Your task to perform on an android device: open app "Cash App" Image 0: 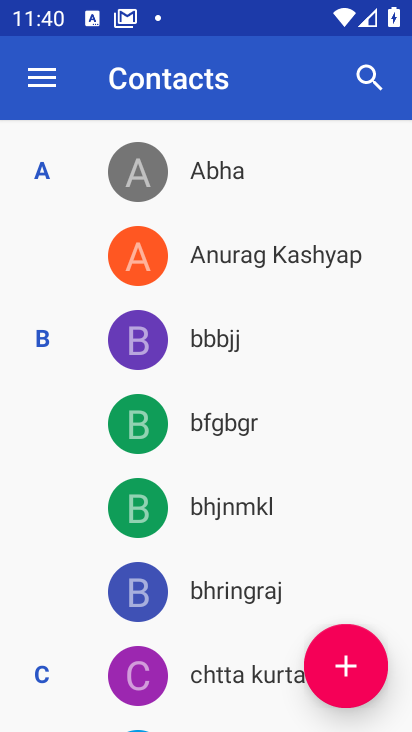
Step 0: press back button
Your task to perform on an android device: open app "Cash App" Image 1: 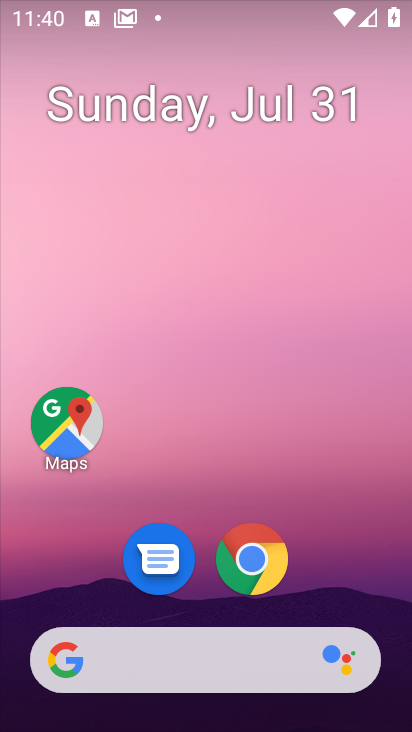
Step 1: drag from (40, 594) to (166, 17)
Your task to perform on an android device: open app "Cash App" Image 2: 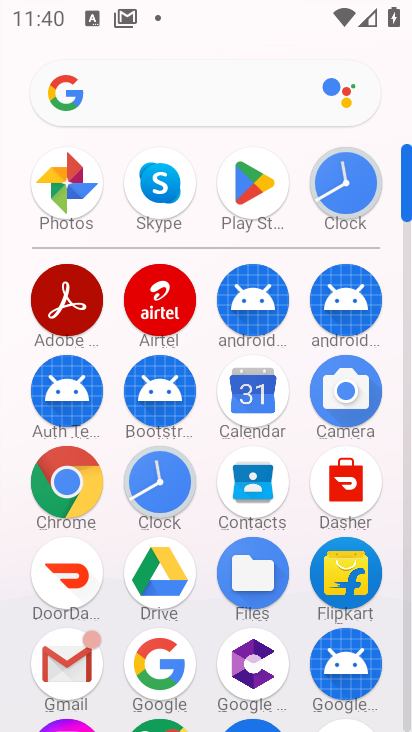
Step 2: click (247, 164)
Your task to perform on an android device: open app "Cash App" Image 3: 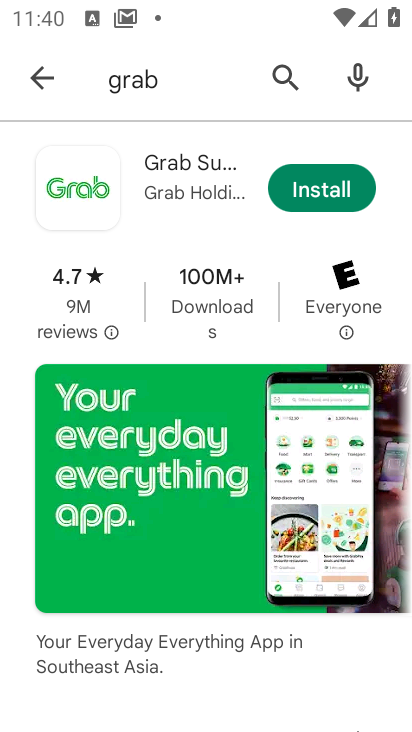
Step 3: click (289, 82)
Your task to perform on an android device: open app "Cash App" Image 4: 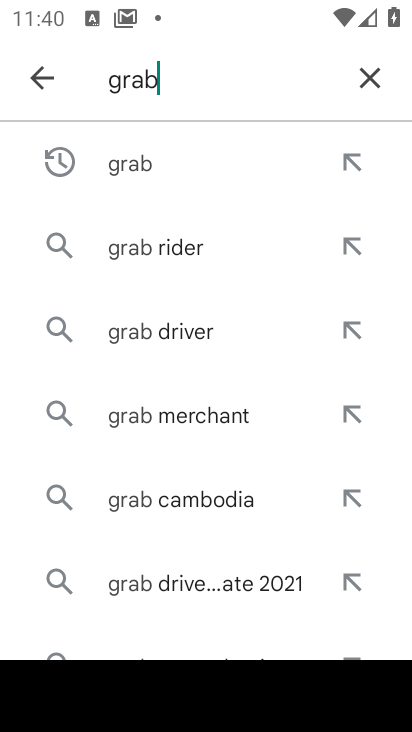
Step 4: click (378, 76)
Your task to perform on an android device: open app "Cash App" Image 5: 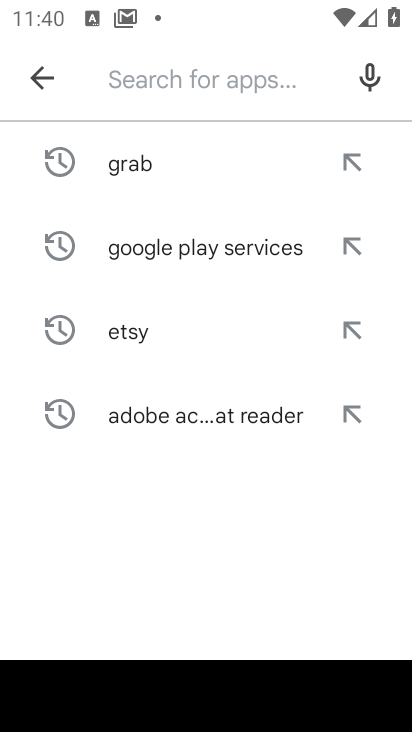
Step 5: click (194, 83)
Your task to perform on an android device: open app "Cash App" Image 6: 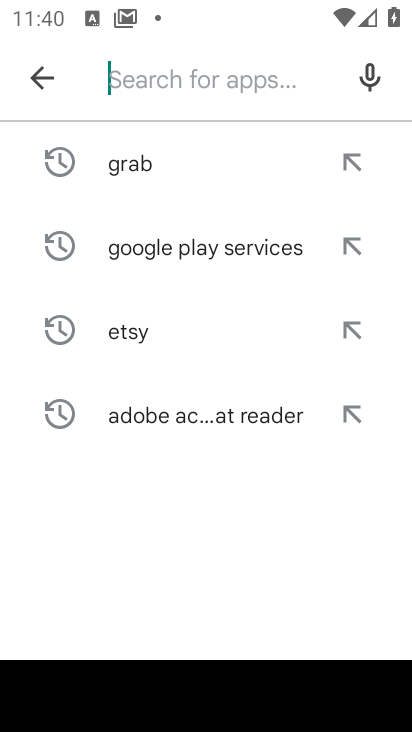
Step 6: click (152, 89)
Your task to perform on an android device: open app "Cash App" Image 7: 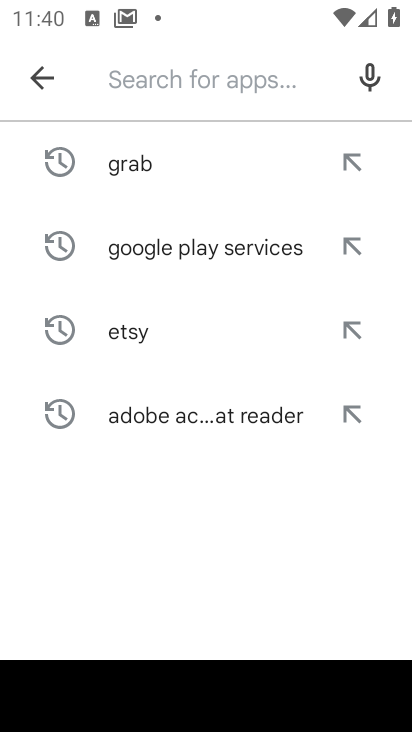
Step 7: type "cashapp"
Your task to perform on an android device: open app "Cash App" Image 8: 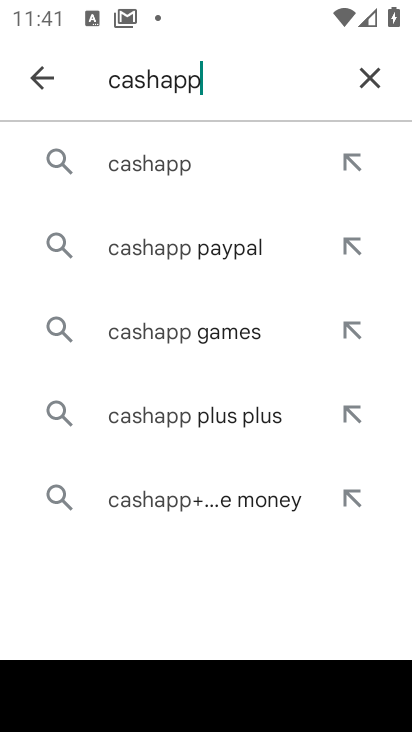
Step 8: click (163, 156)
Your task to perform on an android device: open app "Cash App" Image 9: 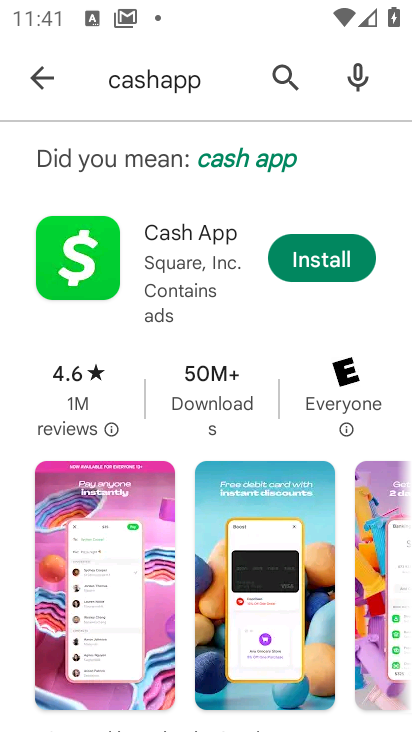
Step 9: task complete